Your task to perform on an android device: Open Reddit.com Image 0: 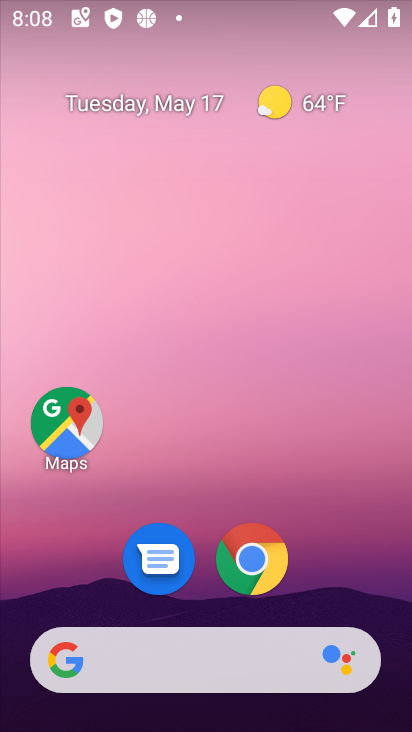
Step 0: click (259, 571)
Your task to perform on an android device: Open Reddit.com Image 1: 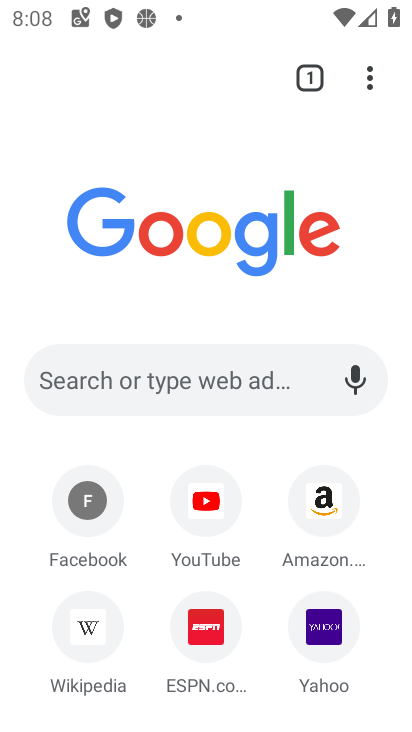
Step 1: click (189, 398)
Your task to perform on an android device: Open Reddit.com Image 2: 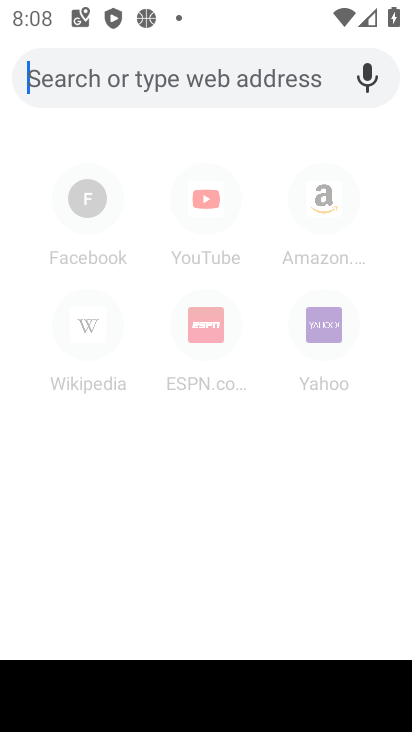
Step 2: type "reddit"
Your task to perform on an android device: Open Reddit.com Image 3: 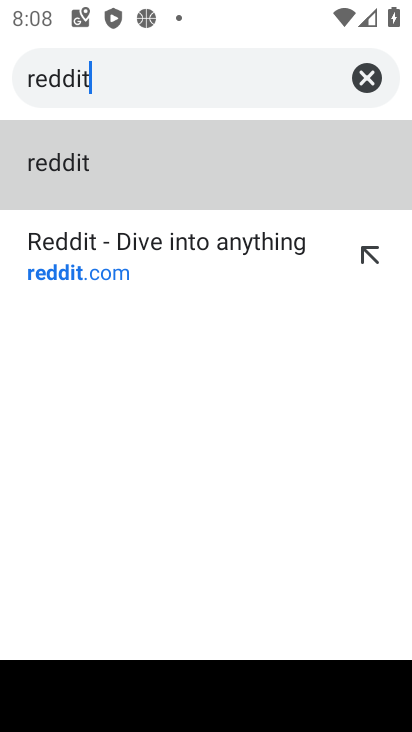
Step 3: click (135, 244)
Your task to perform on an android device: Open Reddit.com Image 4: 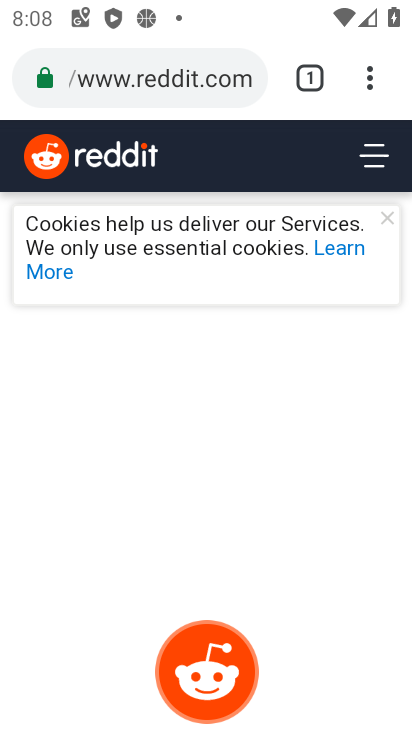
Step 4: task complete